Your task to perform on an android device: open chrome and create a bookmark for the current page Image 0: 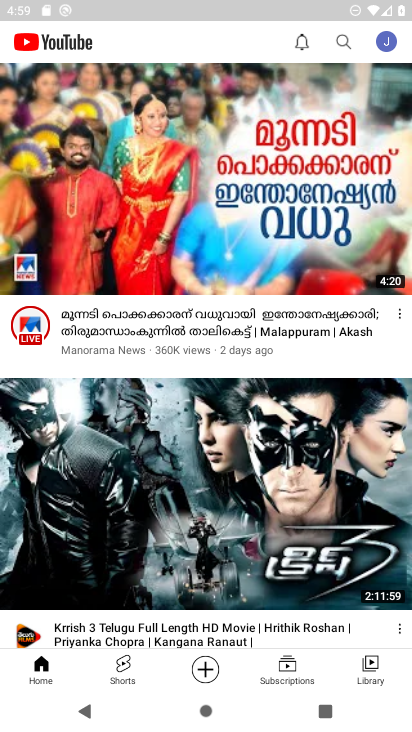
Step 0: press home button
Your task to perform on an android device: open chrome and create a bookmark for the current page Image 1: 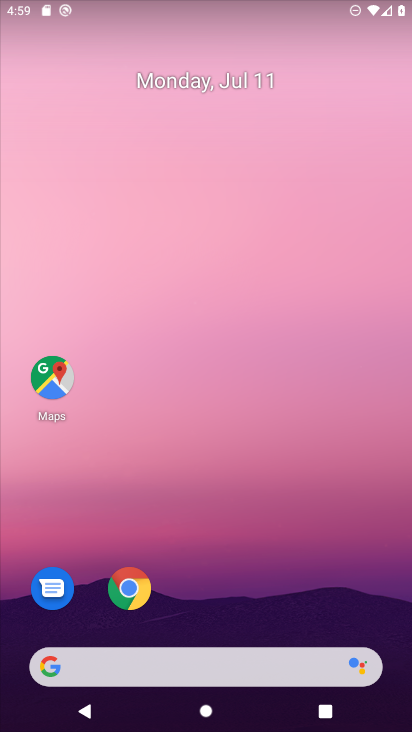
Step 1: drag from (183, 274) to (186, 124)
Your task to perform on an android device: open chrome and create a bookmark for the current page Image 2: 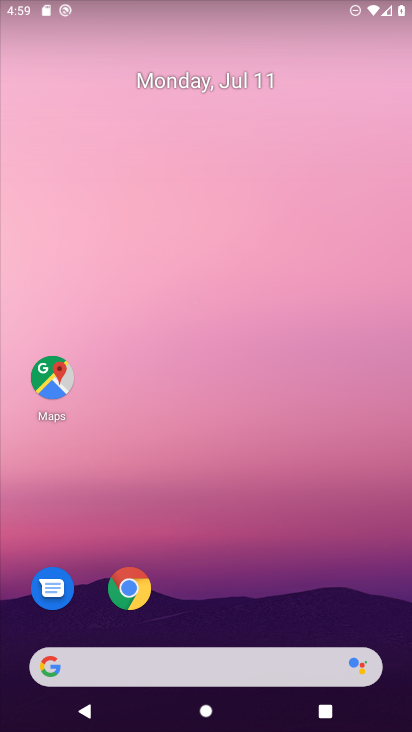
Step 2: drag from (227, 599) to (220, 50)
Your task to perform on an android device: open chrome and create a bookmark for the current page Image 3: 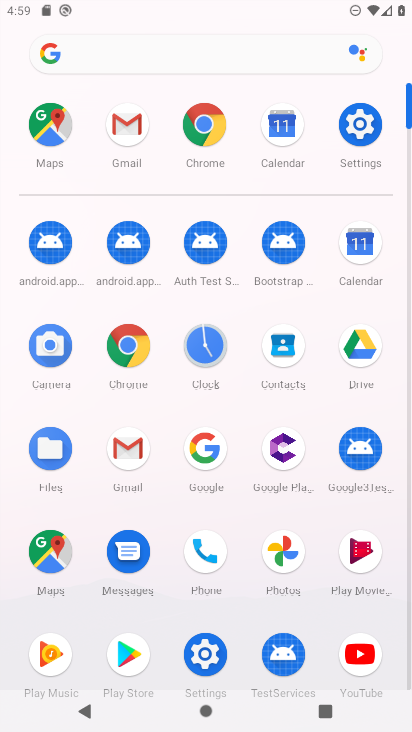
Step 3: click (200, 129)
Your task to perform on an android device: open chrome and create a bookmark for the current page Image 4: 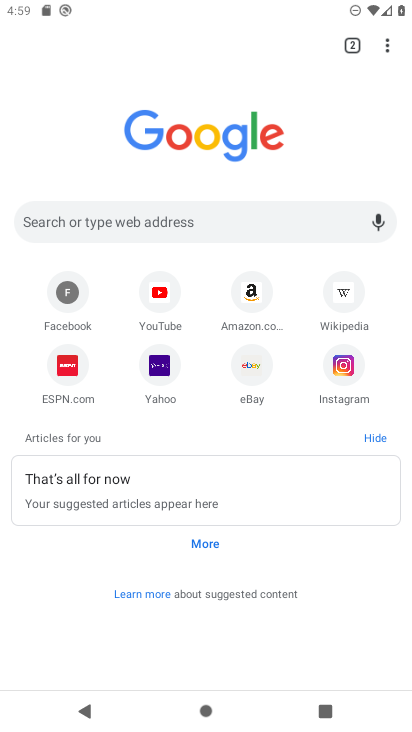
Step 4: task complete